Your task to perform on an android device: star an email in the gmail app Image 0: 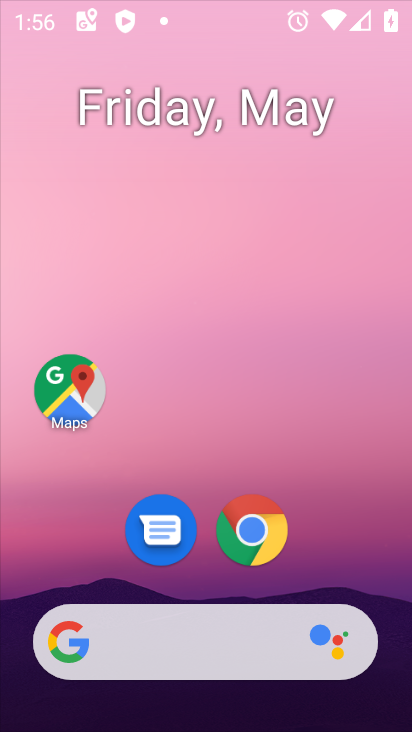
Step 0: click (318, 6)
Your task to perform on an android device: star an email in the gmail app Image 1: 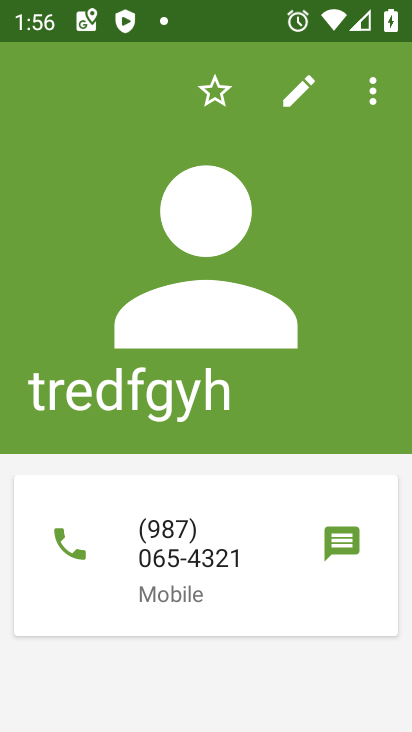
Step 1: press home button
Your task to perform on an android device: star an email in the gmail app Image 2: 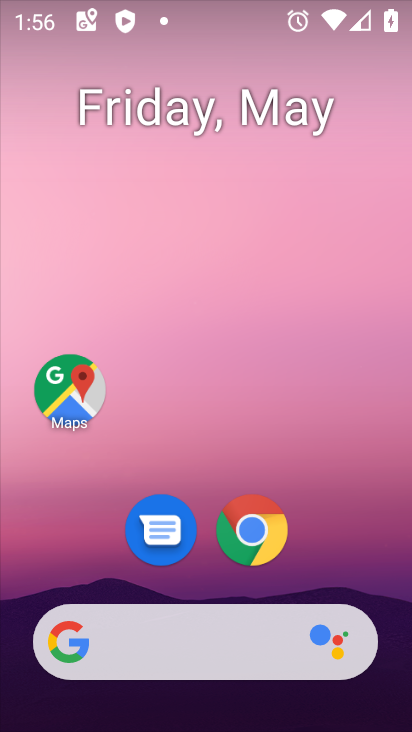
Step 2: drag from (355, 542) to (348, 22)
Your task to perform on an android device: star an email in the gmail app Image 3: 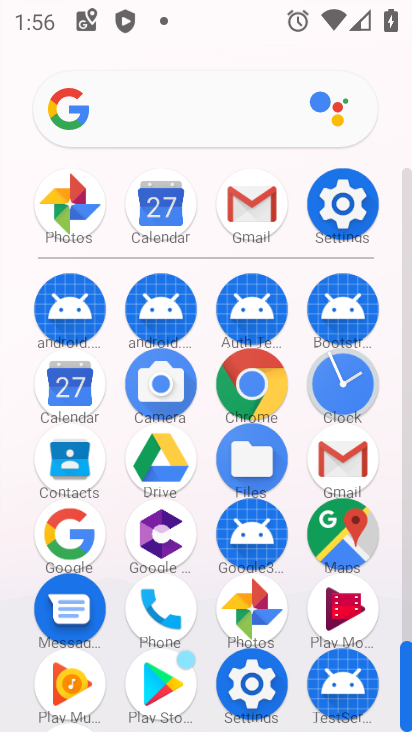
Step 3: click (260, 211)
Your task to perform on an android device: star an email in the gmail app Image 4: 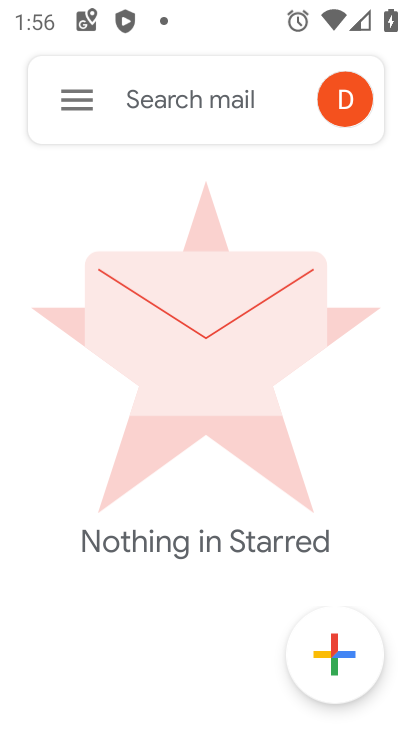
Step 4: click (85, 113)
Your task to perform on an android device: star an email in the gmail app Image 5: 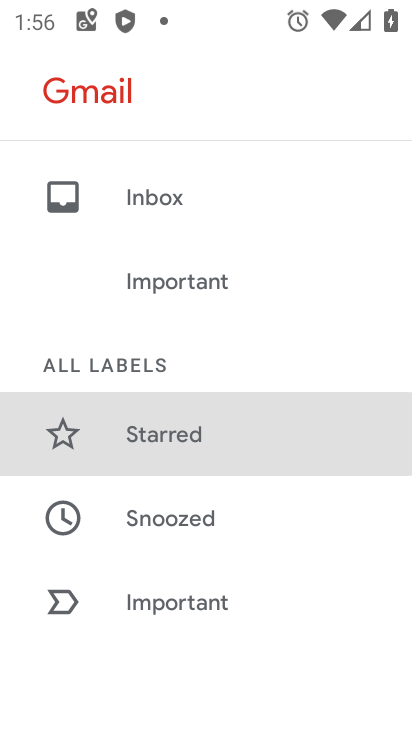
Step 5: drag from (207, 487) to (215, 136)
Your task to perform on an android device: star an email in the gmail app Image 6: 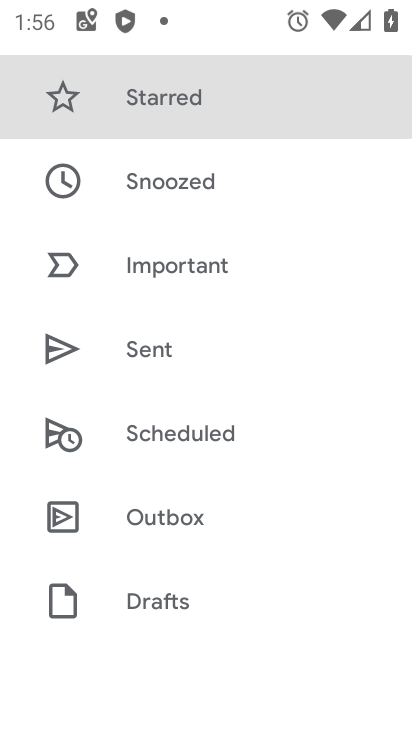
Step 6: drag from (171, 537) to (174, 143)
Your task to perform on an android device: star an email in the gmail app Image 7: 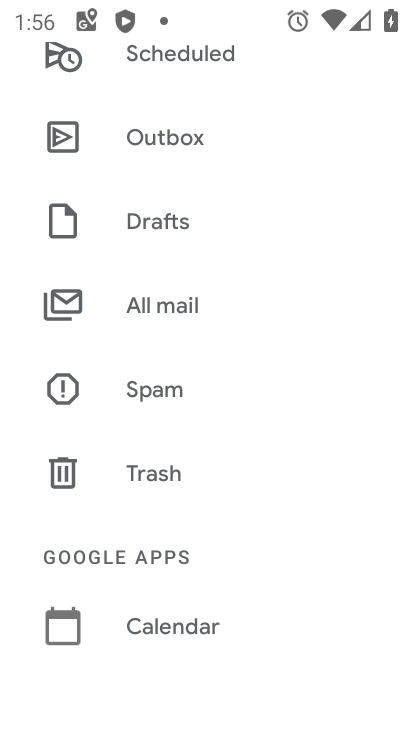
Step 7: click (200, 283)
Your task to perform on an android device: star an email in the gmail app Image 8: 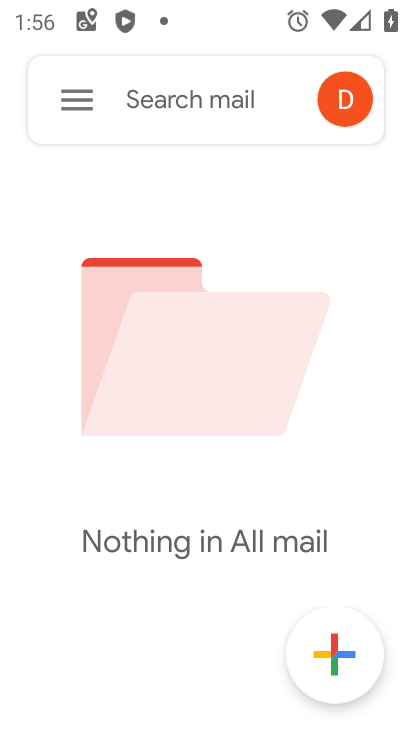
Step 8: task complete